Your task to perform on an android device: Open Google Maps Image 0: 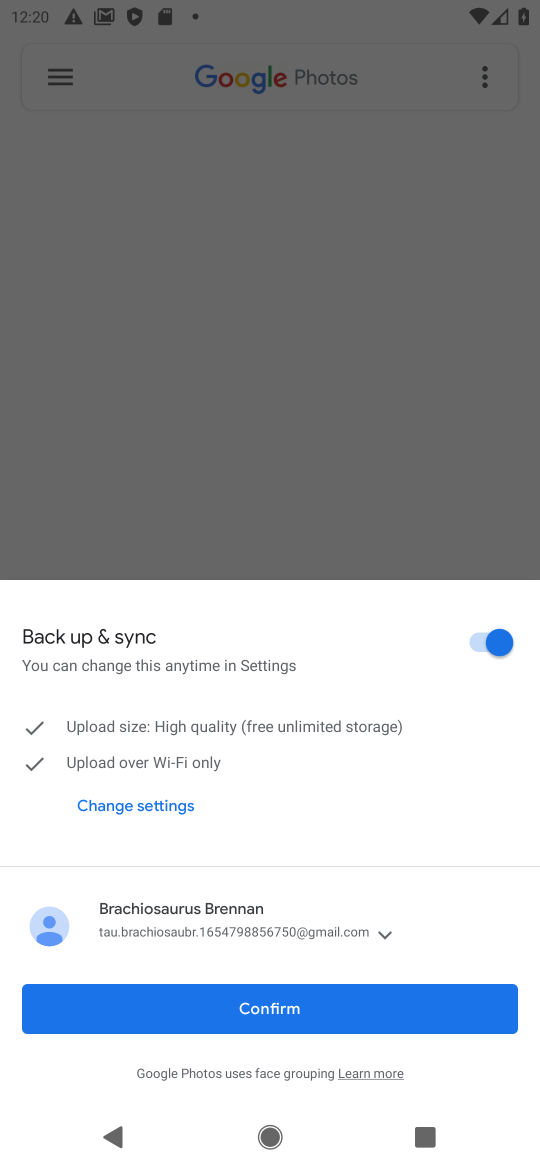
Step 0: press home button
Your task to perform on an android device: Open Google Maps Image 1: 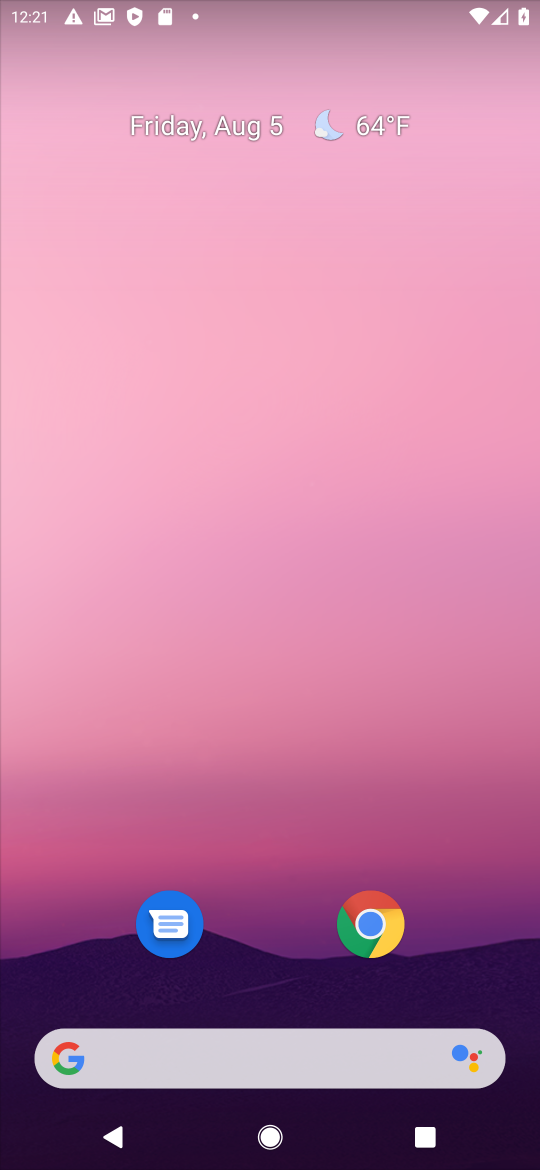
Step 1: click (286, 728)
Your task to perform on an android device: Open Google Maps Image 2: 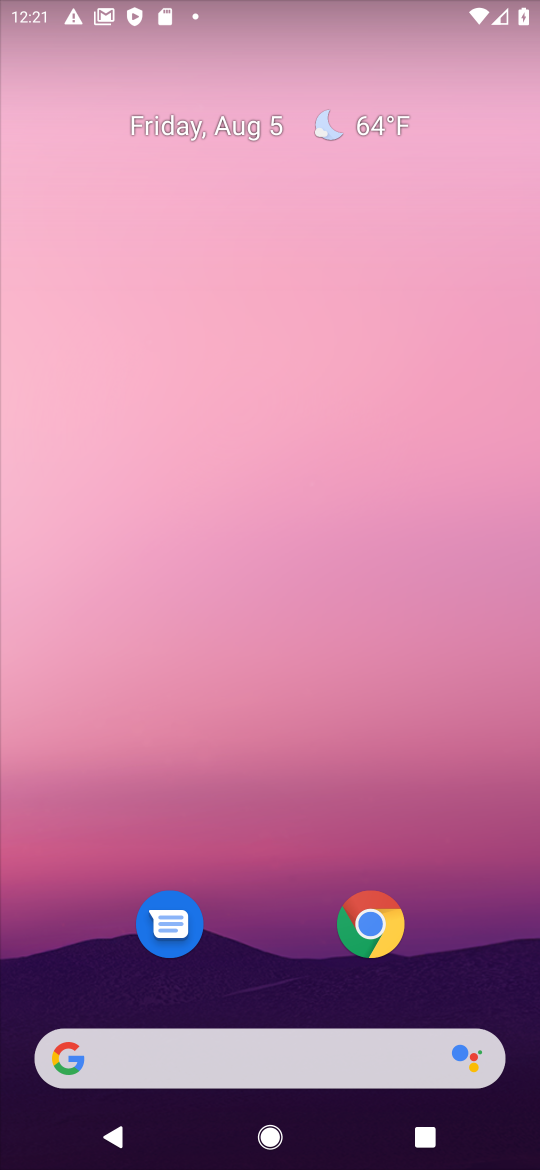
Step 2: drag from (271, 777) to (480, 452)
Your task to perform on an android device: Open Google Maps Image 3: 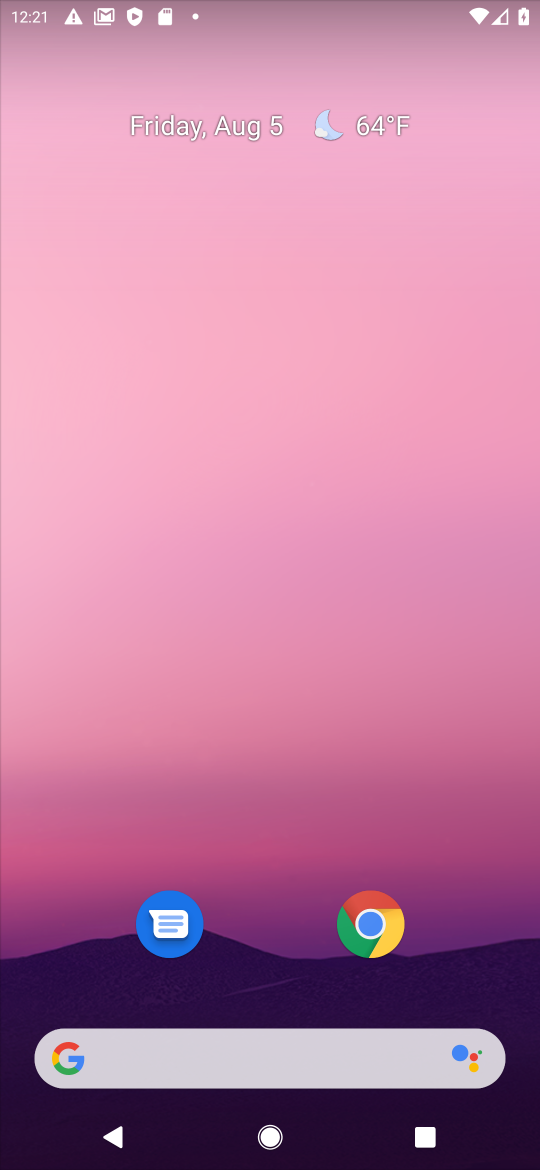
Step 3: drag from (292, 862) to (307, 27)
Your task to perform on an android device: Open Google Maps Image 4: 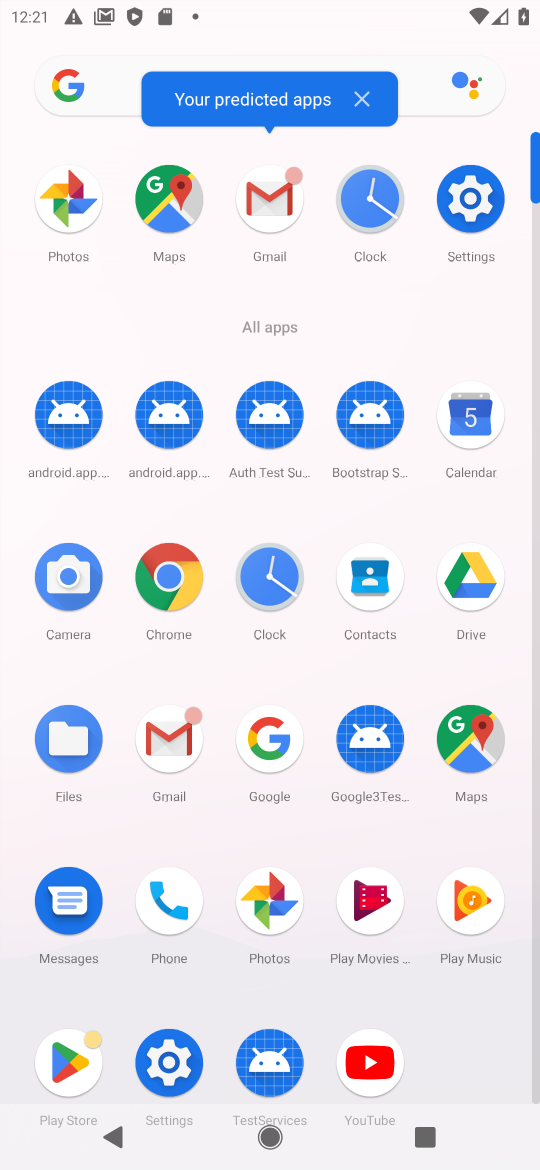
Step 4: click (481, 732)
Your task to perform on an android device: Open Google Maps Image 5: 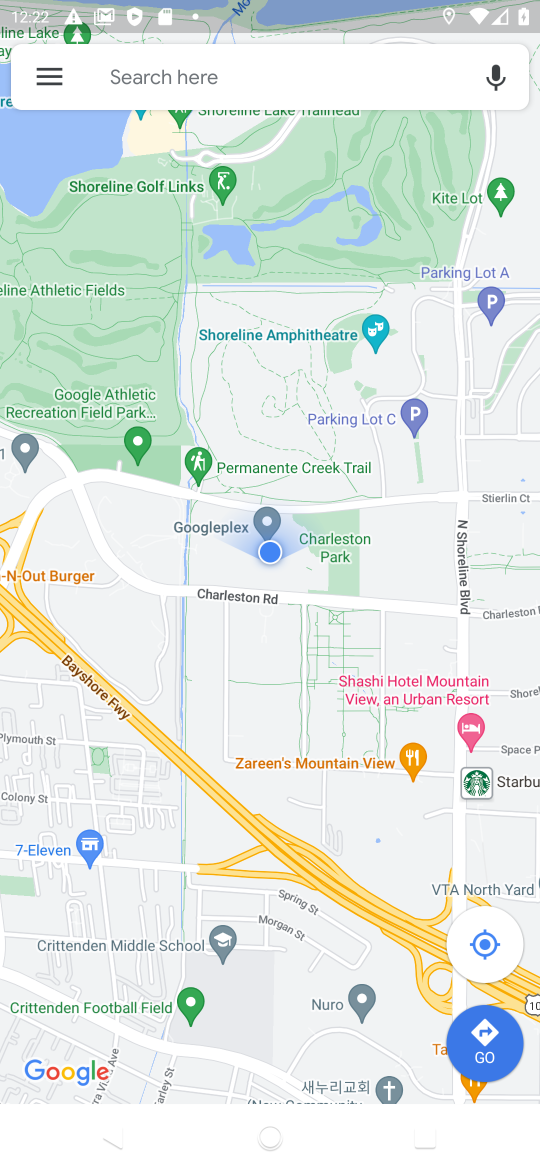
Step 5: task complete